Your task to perform on an android device: open device folders in google photos Image 0: 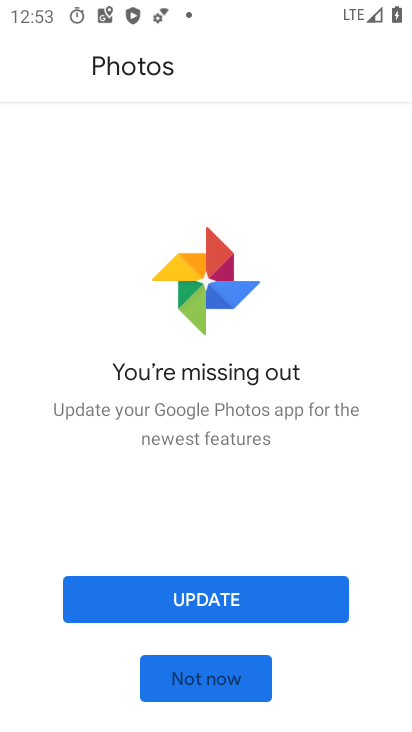
Step 0: click (249, 670)
Your task to perform on an android device: open device folders in google photos Image 1: 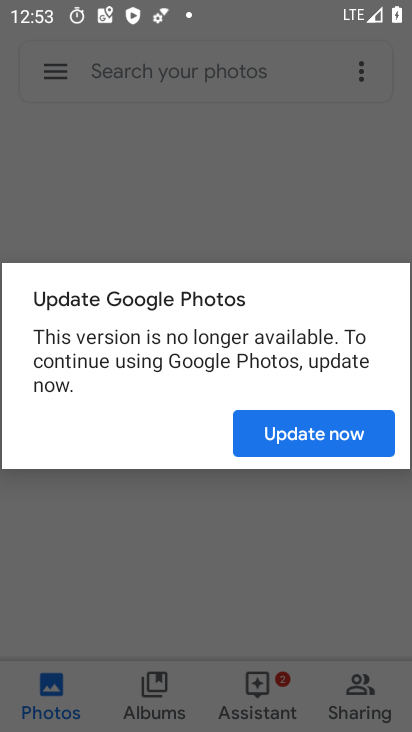
Step 1: click (344, 432)
Your task to perform on an android device: open device folders in google photos Image 2: 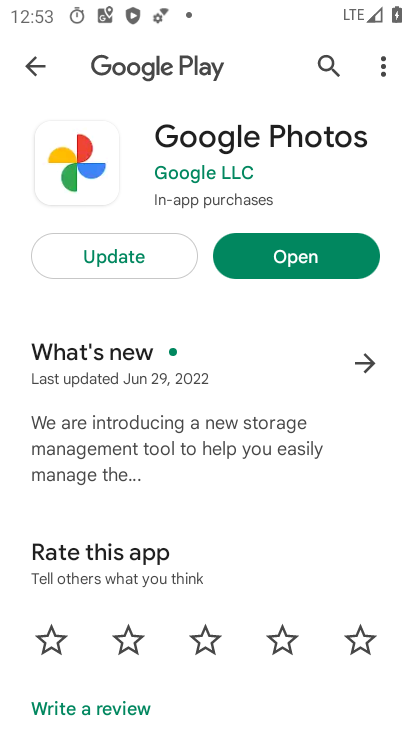
Step 2: click (312, 261)
Your task to perform on an android device: open device folders in google photos Image 3: 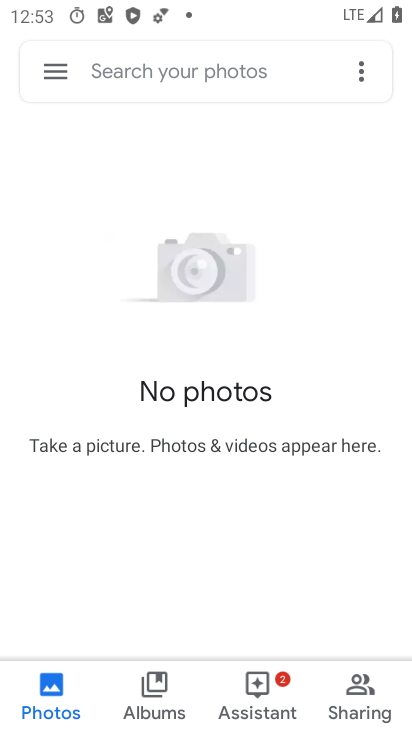
Step 3: click (58, 67)
Your task to perform on an android device: open device folders in google photos Image 4: 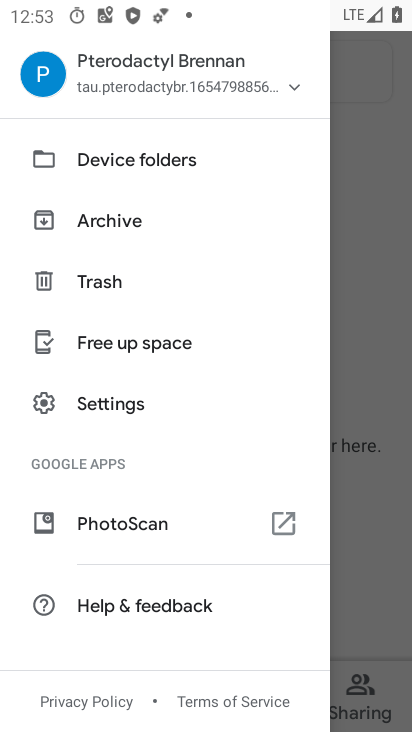
Step 4: click (114, 159)
Your task to perform on an android device: open device folders in google photos Image 5: 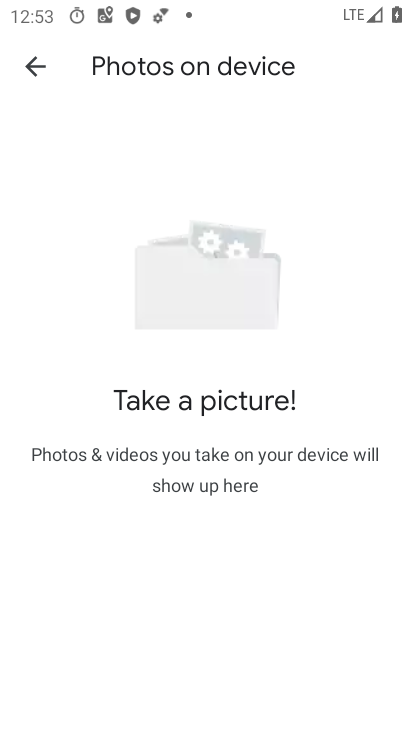
Step 5: task complete